Your task to perform on an android device: Find coffee shops on Maps Image 0: 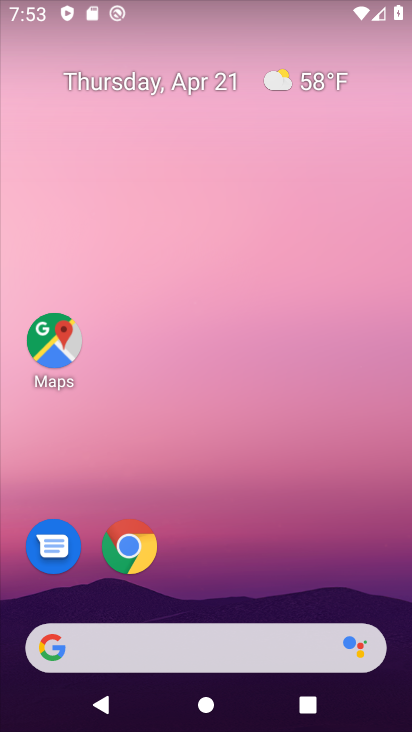
Step 0: click (65, 337)
Your task to perform on an android device: Find coffee shops on Maps Image 1: 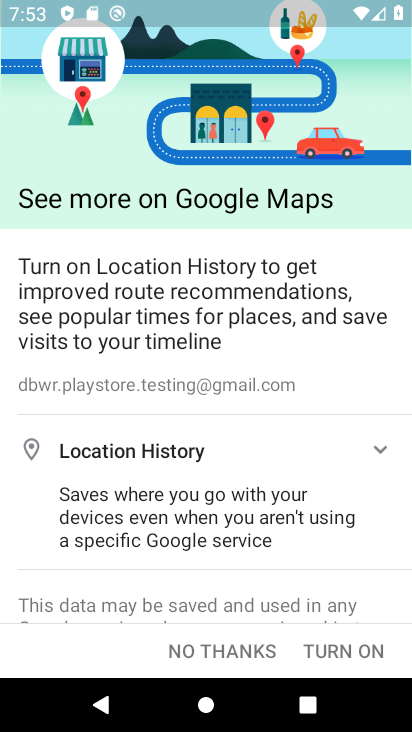
Step 1: click (261, 656)
Your task to perform on an android device: Find coffee shops on Maps Image 2: 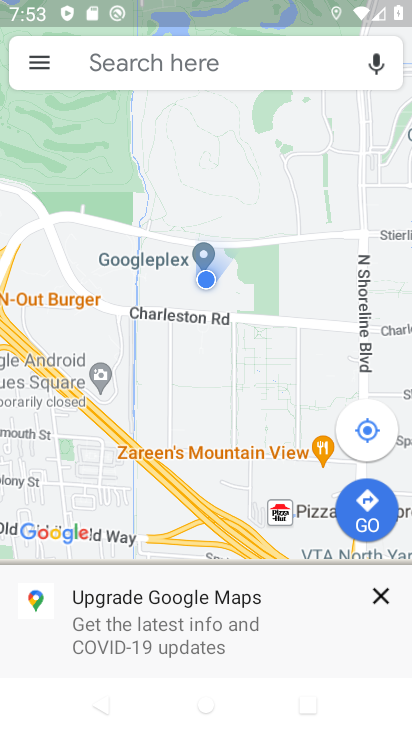
Step 2: click (174, 48)
Your task to perform on an android device: Find coffee shops on Maps Image 3: 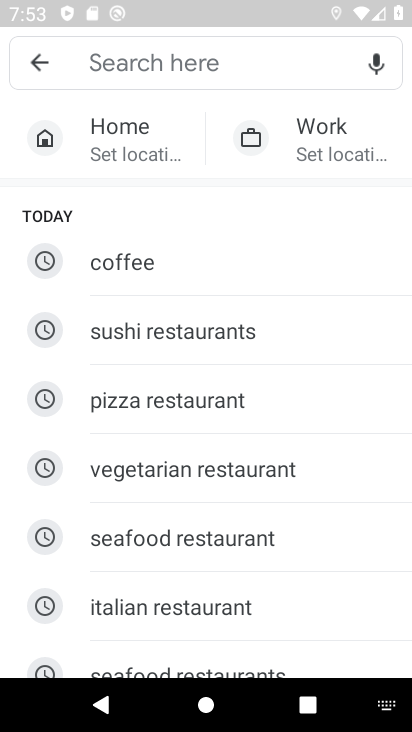
Step 3: click (128, 281)
Your task to perform on an android device: Find coffee shops on Maps Image 4: 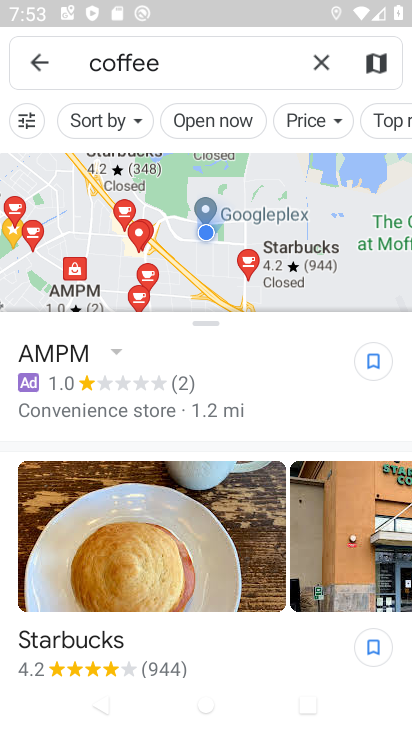
Step 4: task complete